Your task to perform on an android device: turn on showing notifications on the lock screen Image 0: 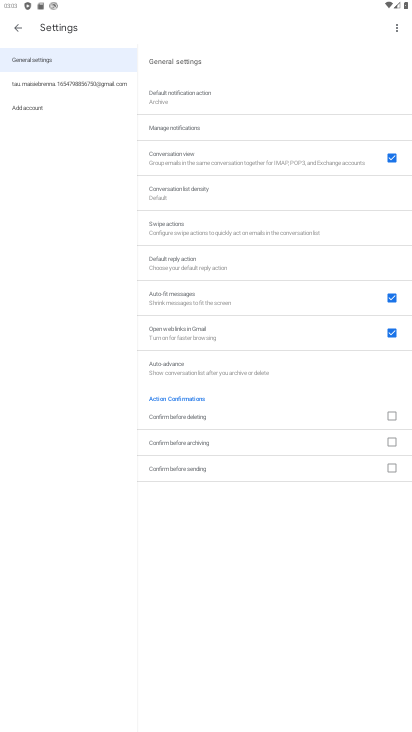
Step 0: press home button
Your task to perform on an android device: turn on showing notifications on the lock screen Image 1: 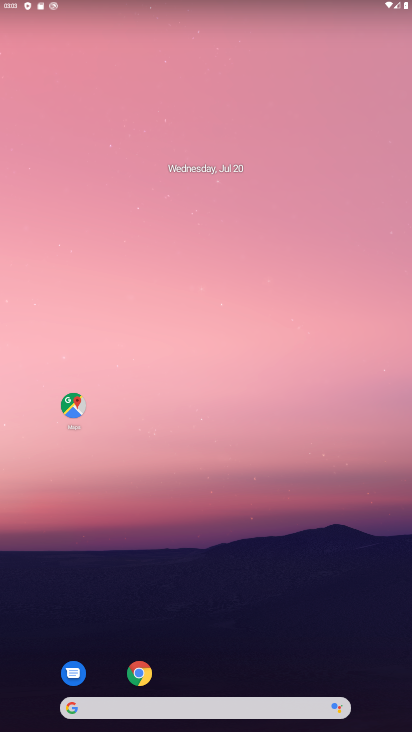
Step 1: drag from (206, 676) to (199, 116)
Your task to perform on an android device: turn on showing notifications on the lock screen Image 2: 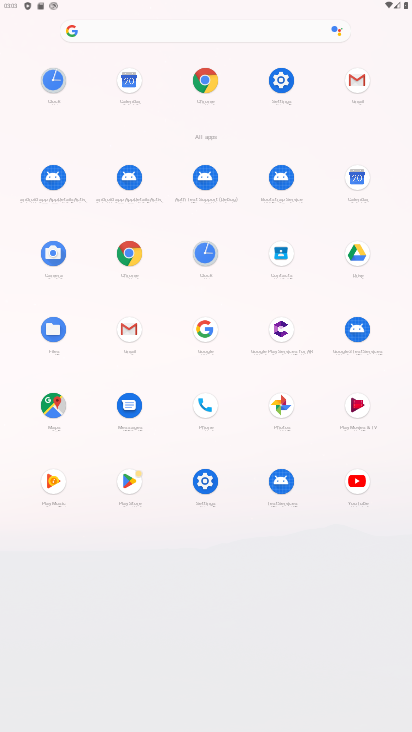
Step 2: click (274, 86)
Your task to perform on an android device: turn on showing notifications on the lock screen Image 3: 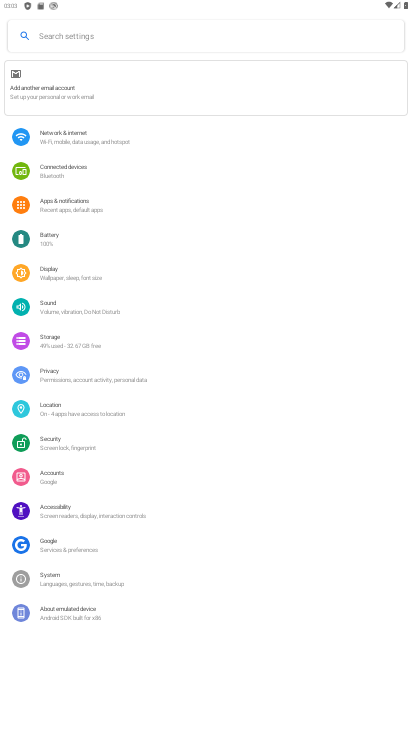
Step 3: click (144, 198)
Your task to perform on an android device: turn on showing notifications on the lock screen Image 4: 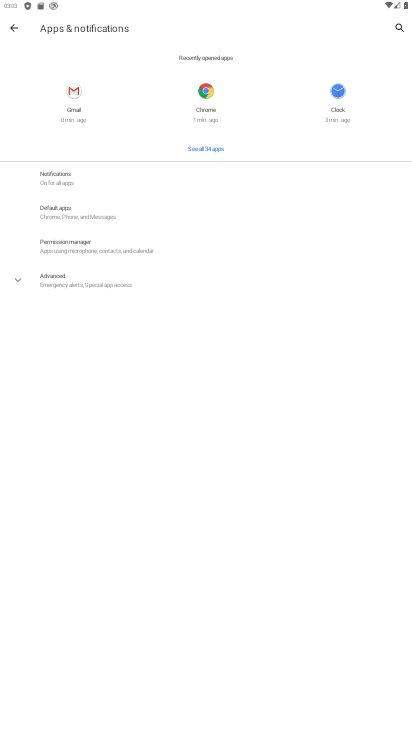
Step 4: click (96, 184)
Your task to perform on an android device: turn on showing notifications on the lock screen Image 5: 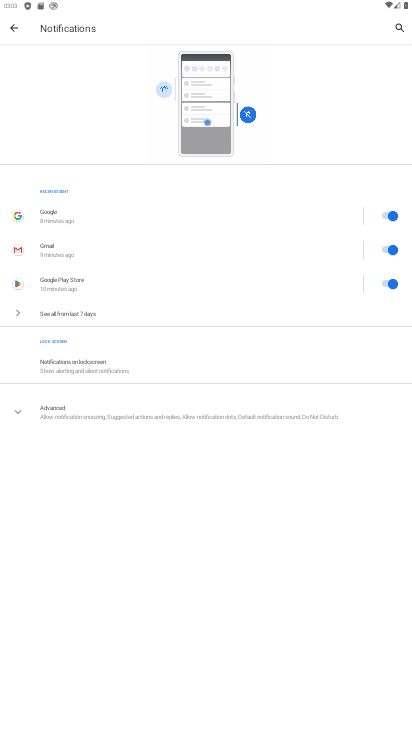
Step 5: click (129, 376)
Your task to perform on an android device: turn on showing notifications on the lock screen Image 6: 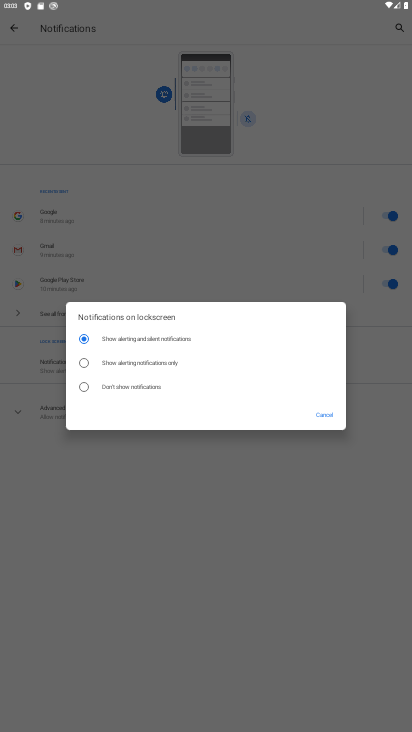
Step 6: task complete